Your task to perform on an android device: Open notification settings Image 0: 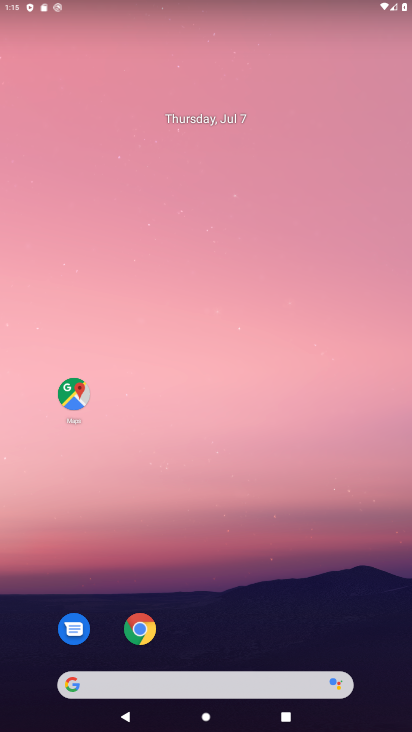
Step 0: drag from (207, 592) to (247, 172)
Your task to perform on an android device: Open notification settings Image 1: 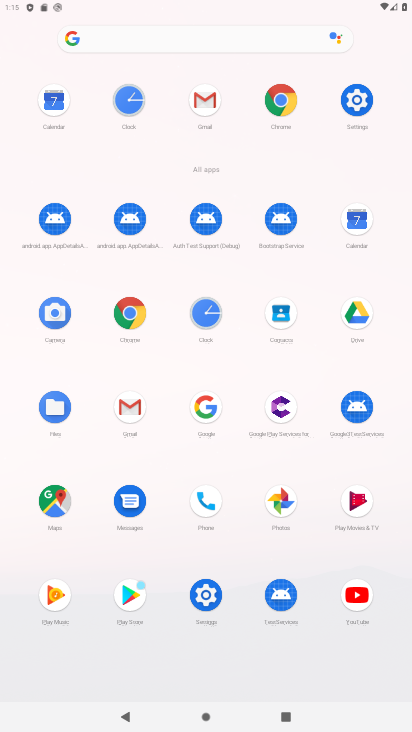
Step 1: click (130, 402)
Your task to perform on an android device: Open notification settings Image 2: 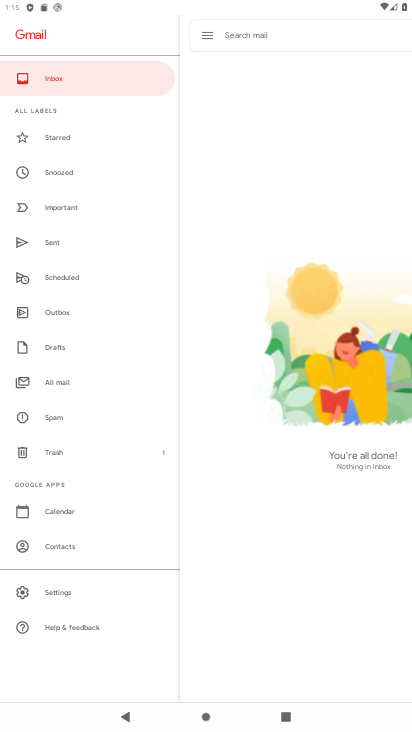
Step 2: press home button
Your task to perform on an android device: Open notification settings Image 3: 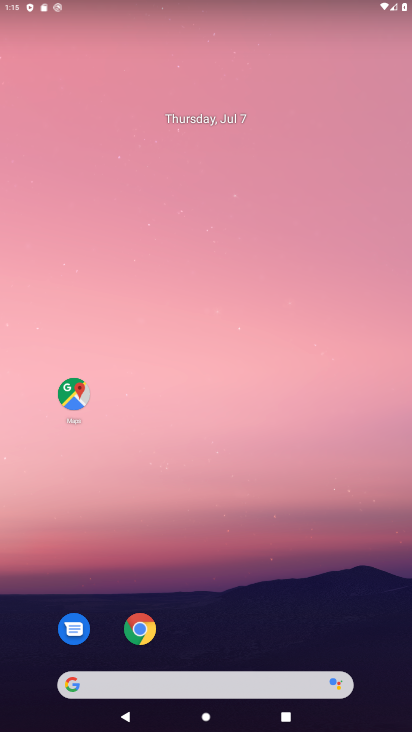
Step 3: drag from (241, 622) to (232, 119)
Your task to perform on an android device: Open notification settings Image 4: 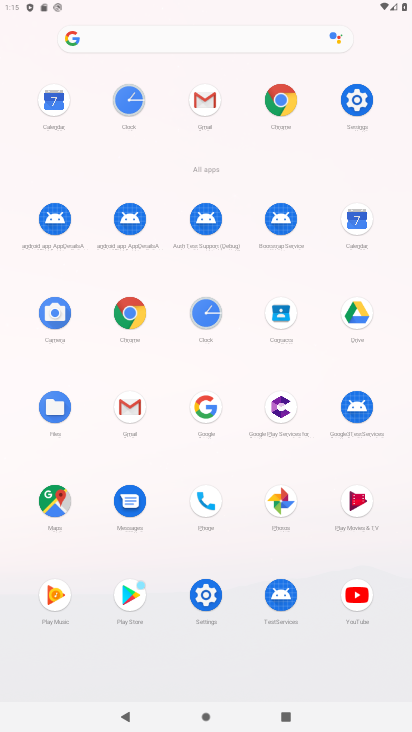
Step 4: click (205, 603)
Your task to perform on an android device: Open notification settings Image 5: 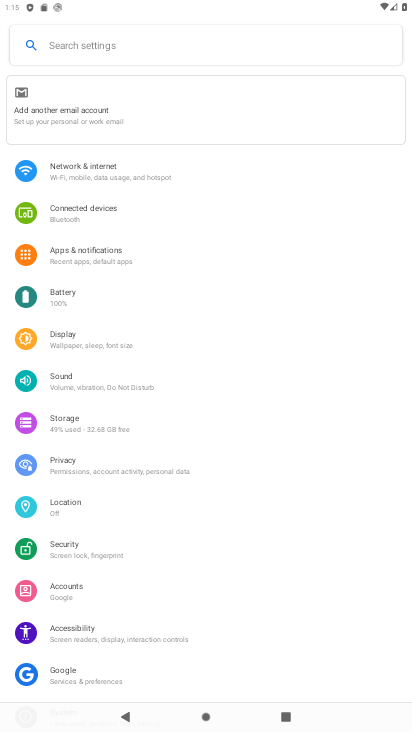
Step 5: click (128, 255)
Your task to perform on an android device: Open notification settings Image 6: 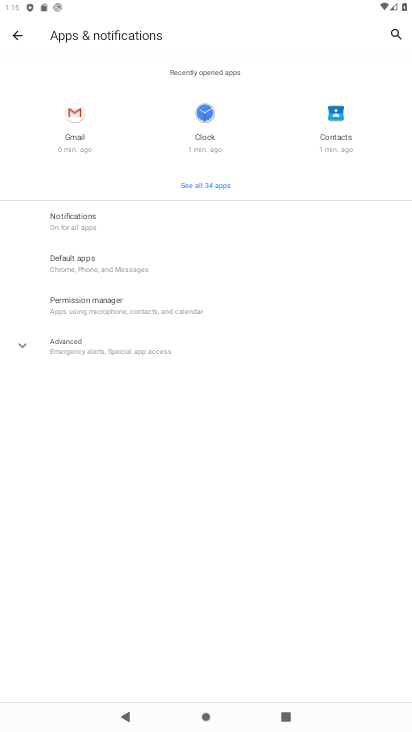
Step 6: click (110, 217)
Your task to perform on an android device: Open notification settings Image 7: 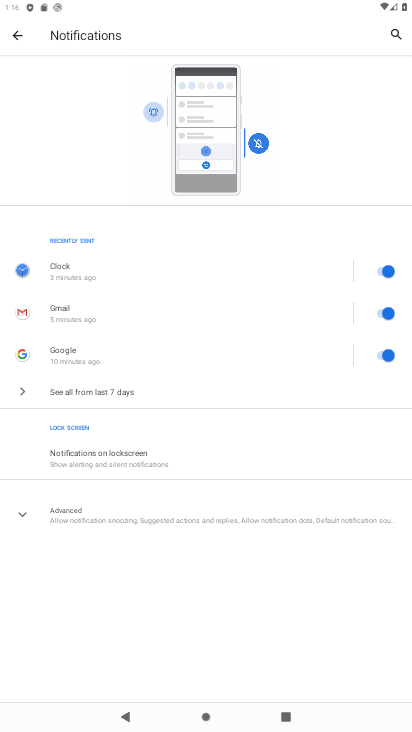
Step 7: task complete